Your task to perform on an android device: Open Yahoo.com Image 0: 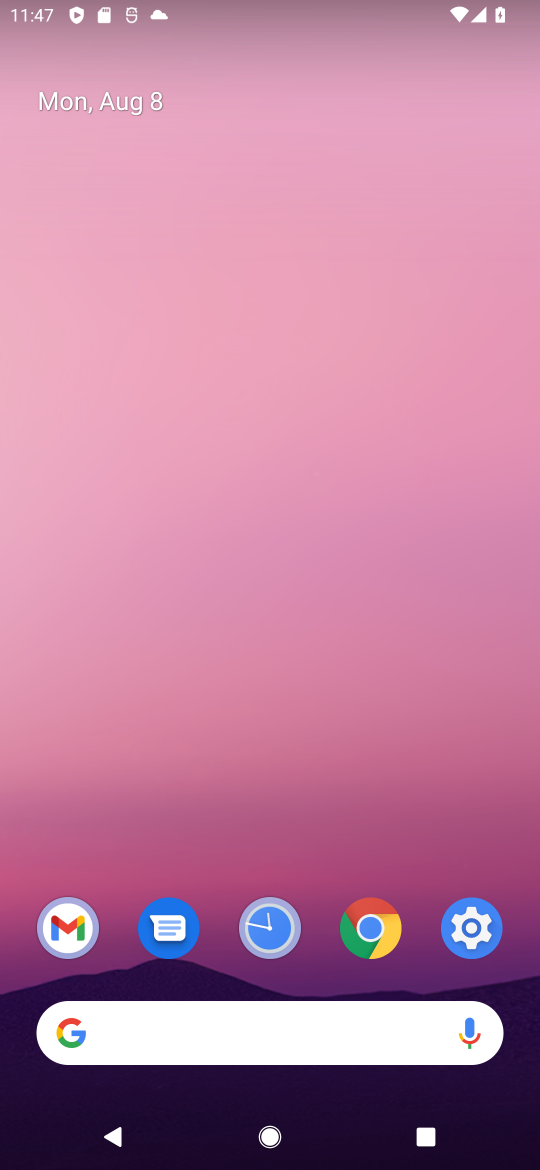
Step 0: click (390, 932)
Your task to perform on an android device: Open Yahoo.com Image 1: 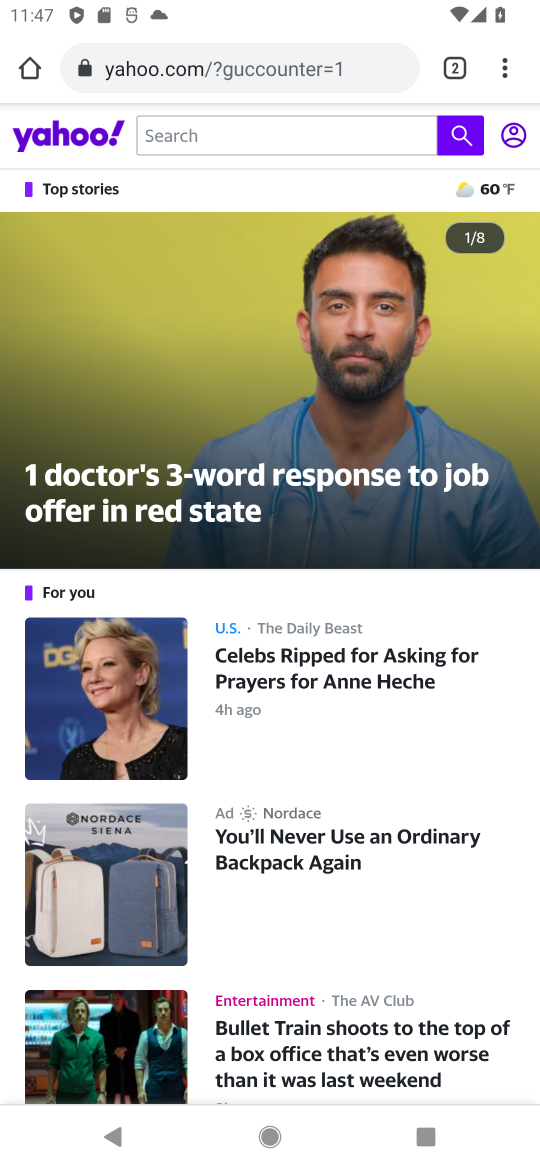
Step 1: click (294, 77)
Your task to perform on an android device: Open Yahoo.com Image 2: 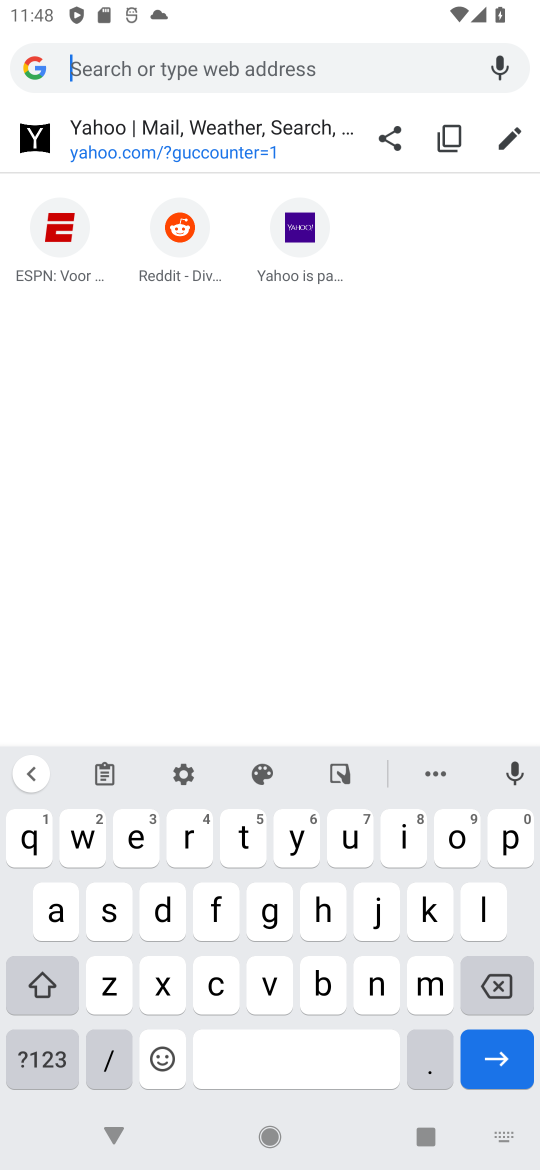
Step 2: click (162, 133)
Your task to perform on an android device: Open Yahoo.com Image 3: 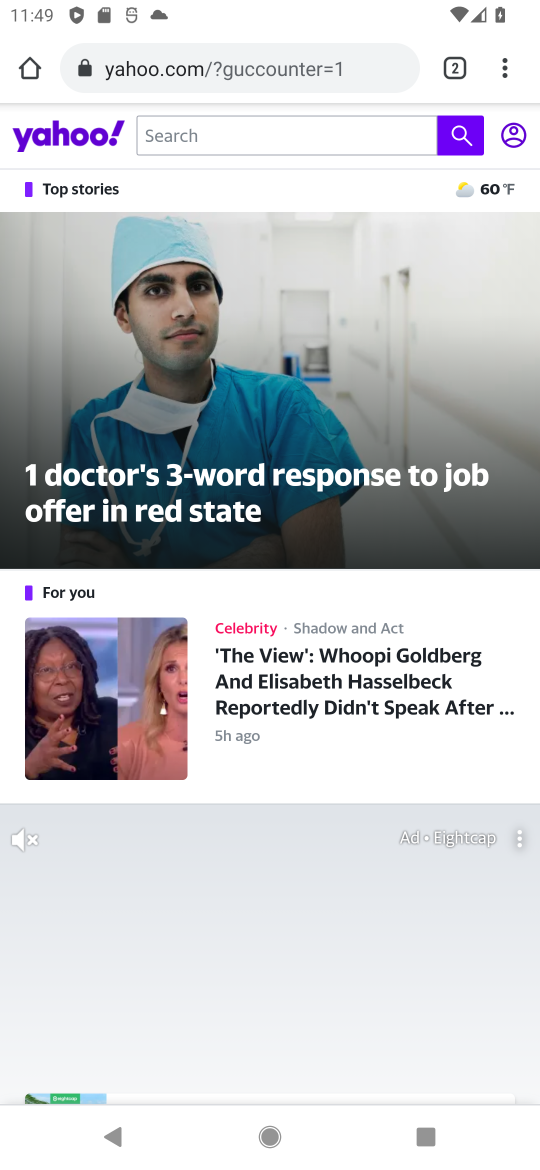
Step 3: task complete